Your task to perform on an android device: open app "NewsBreak: Local News & Alerts" (install if not already installed) and enter user name: "switch@outlook.com" and password: "fabrics" Image 0: 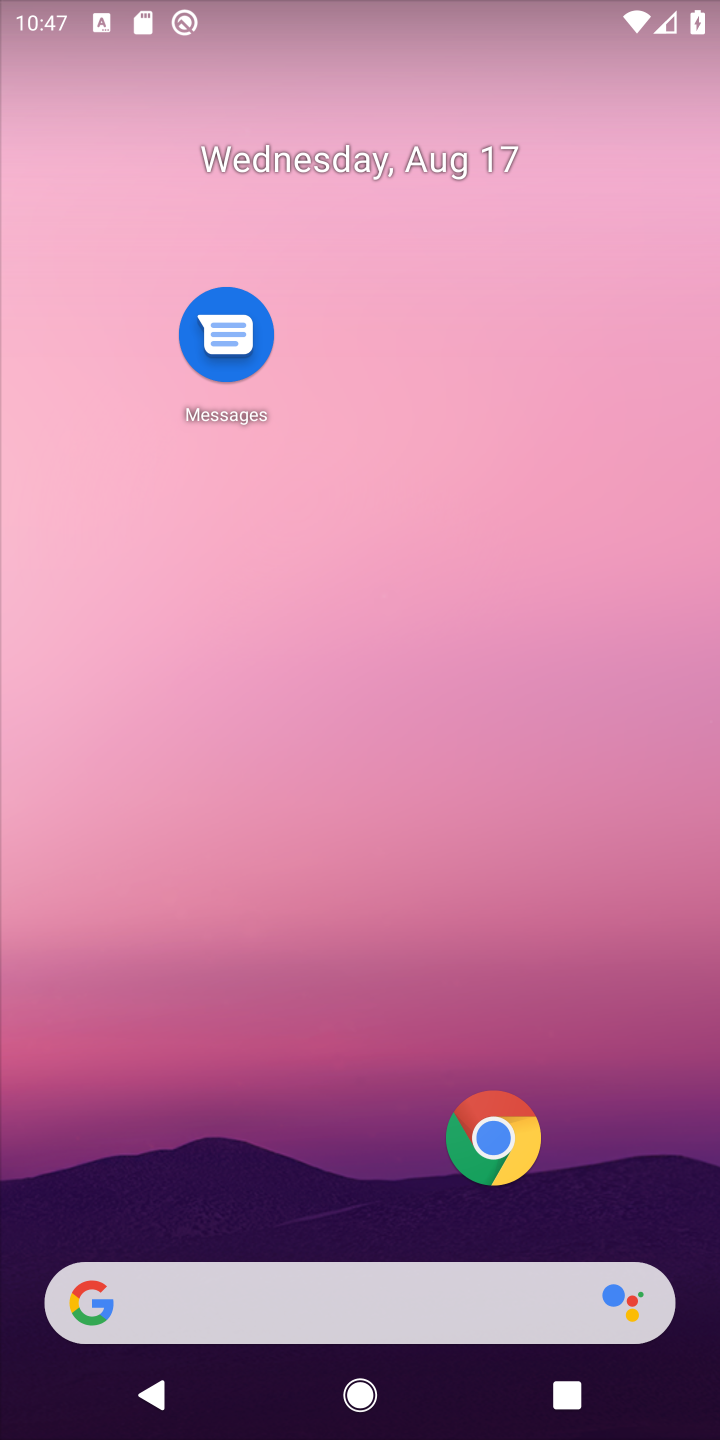
Step 0: drag from (246, 1180) to (253, 52)
Your task to perform on an android device: open app "NewsBreak: Local News & Alerts" (install if not already installed) and enter user name: "switch@outlook.com" and password: "fabrics" Image 1: 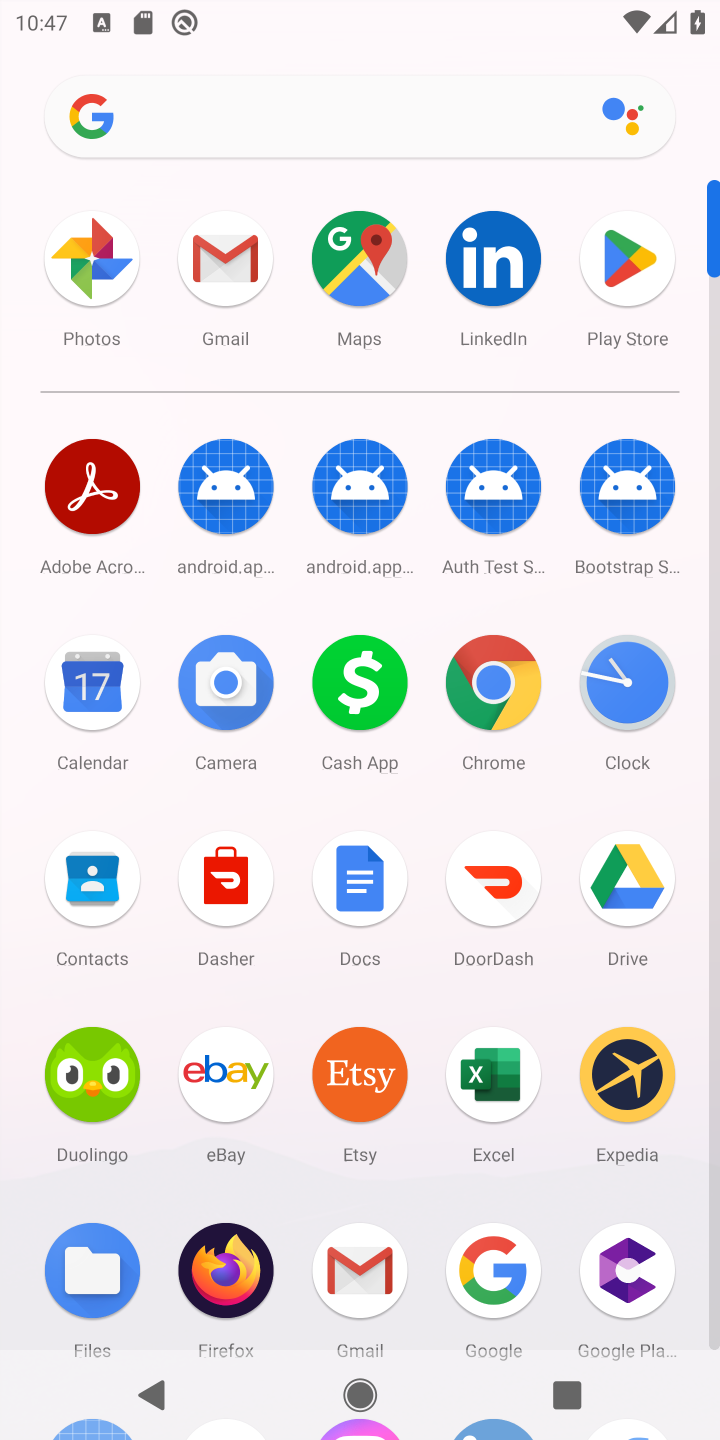
Step 1: click (599, 246)
Your task to perform on an android device: open app "NewsBreak: Local News & Alerts" (install if not already installed) and enter user name: "switch@outlook.com" and password: "fabrics" Image 2: 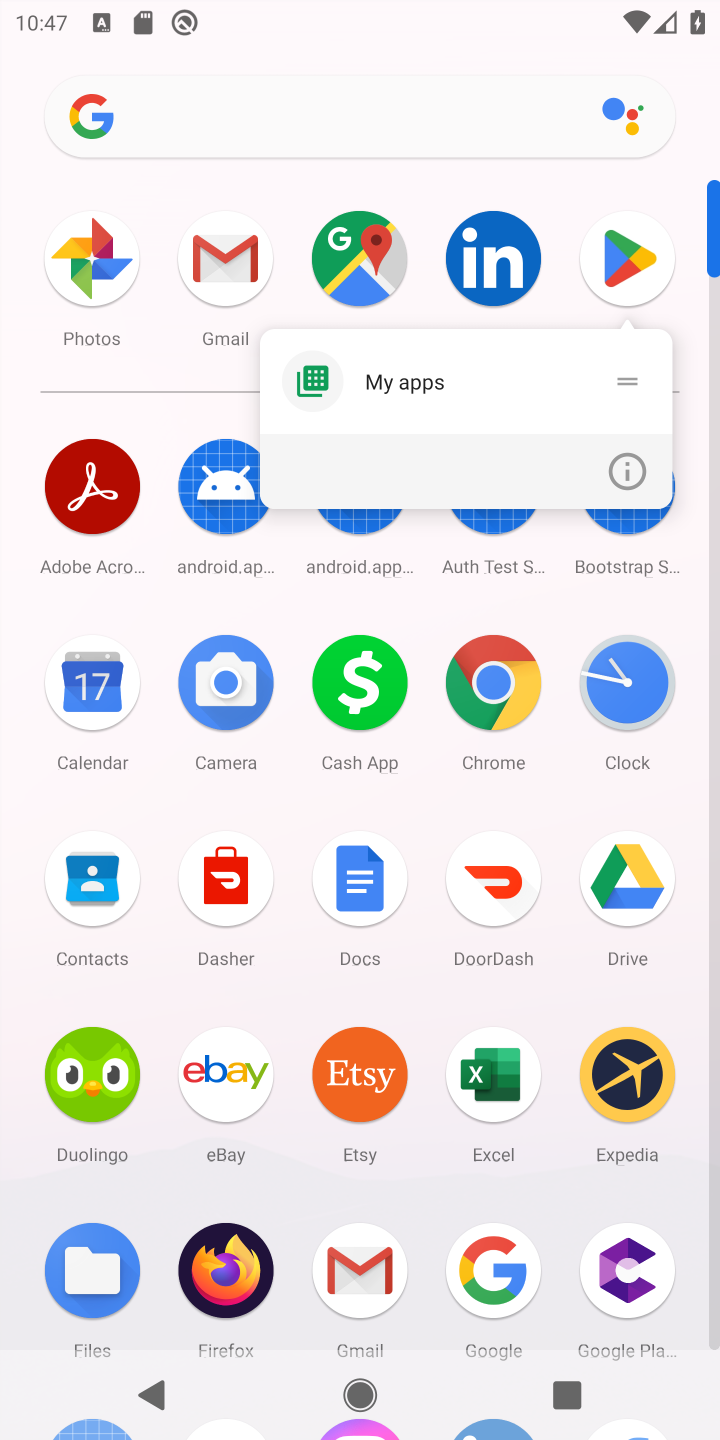
Step 2: click (631, 286)
Your task to perform on an android device: open app "NewsBreak: Local News & Alerts" (install if not already installed) and enter user name: "switch@outlook.com" and password: "fabrics" Image 3: 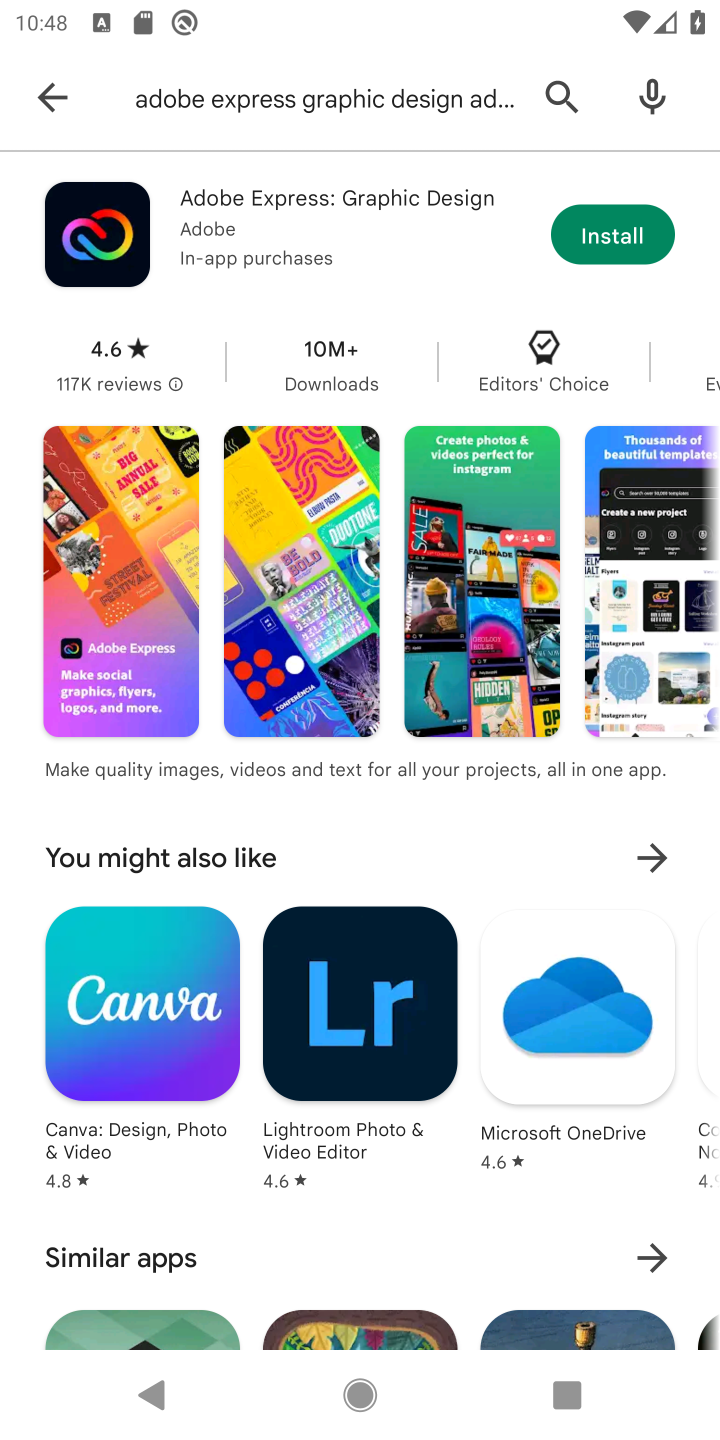
Step 3: click (49, 76)
Your task to perform on an android device: open app "NewsBreak: Local News & Alerts" (install if not already installed) and enter user name: "switch@outlook.com" and password: "fabrics" Image 4: 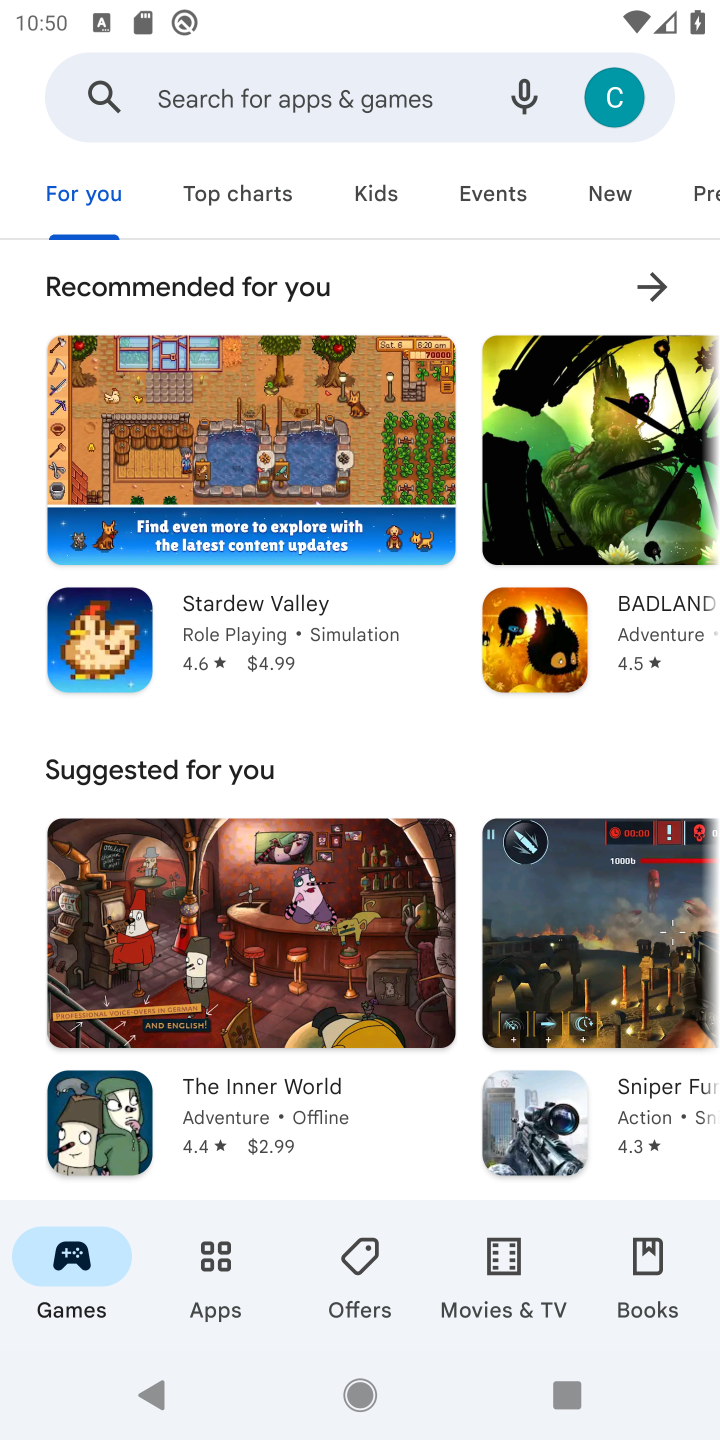
Step 4: click (305, 76)
Your task to perform on an android device: open app "NewsBreak: Local News & Alerts" (install if not already installed) and enter user name: "switch@outlook.com" and password: "fabrics" Image 5: 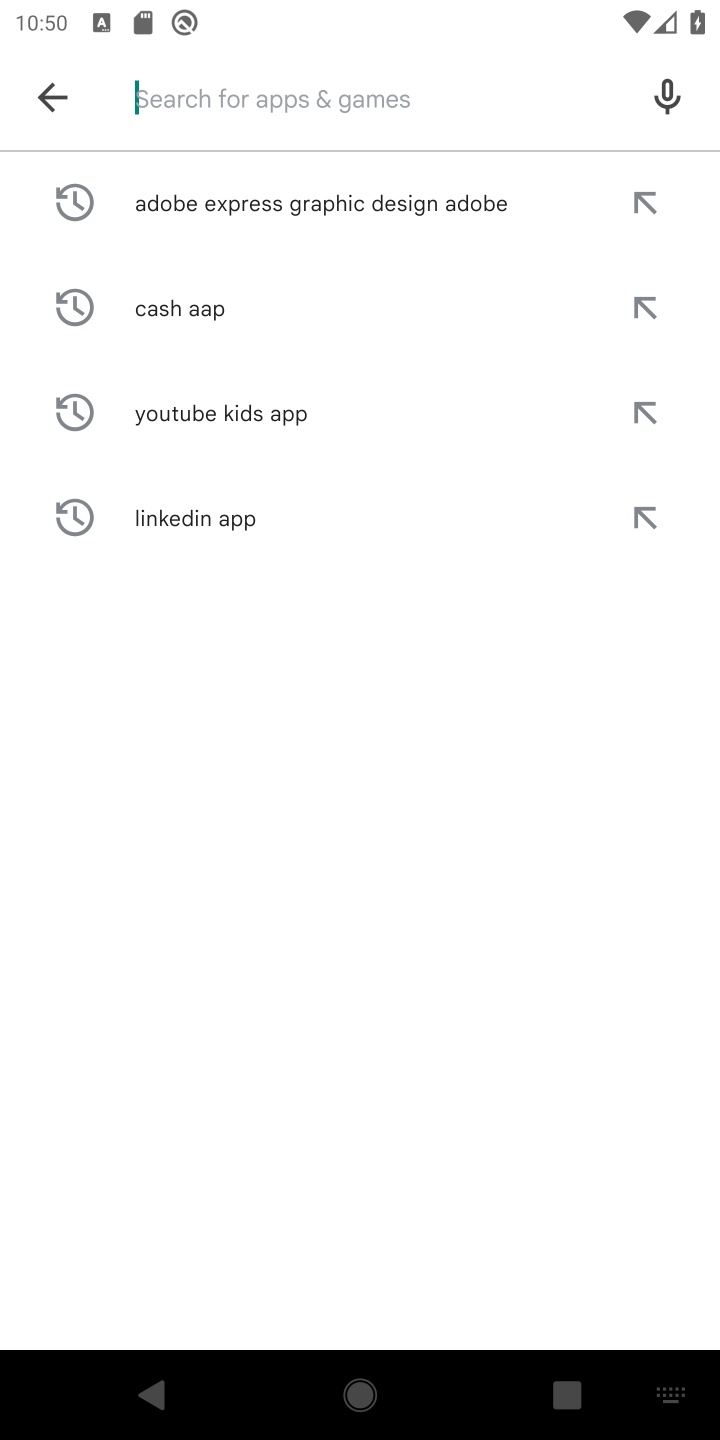
Step 5: type "NewsBreak: Local News & Alerts "
Your task to perform on an android device: open app "NewsBreak: Local News & Alerts" (install if not already installed) and enter user name: "switch@outlook.com" and password: "fabrics" Image 6: 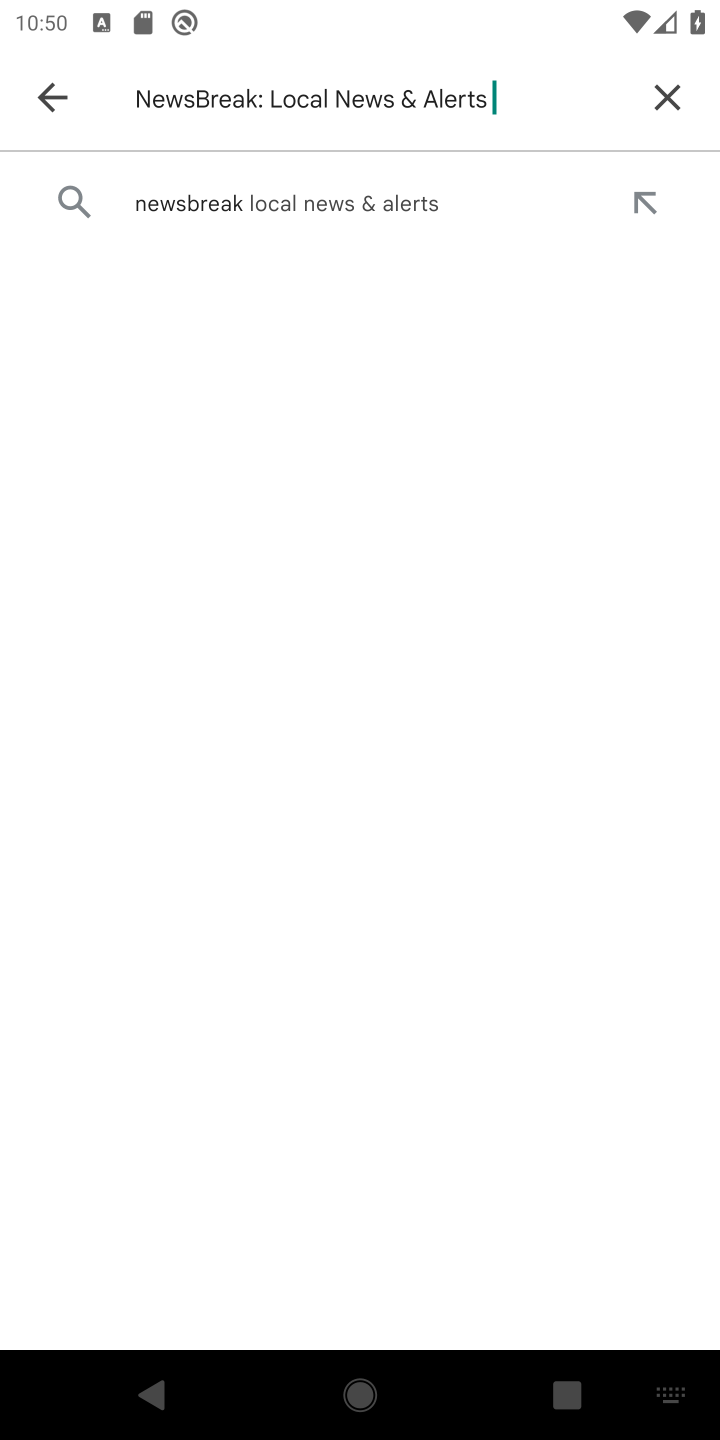
Step 6: click (417, 206)
Your task to perform on an android device: open app "NewsBreak: Local News & Alerts" (install if not already installed) and enter user name: "switch@outlook.com" and password: "fabrics" Image 7: 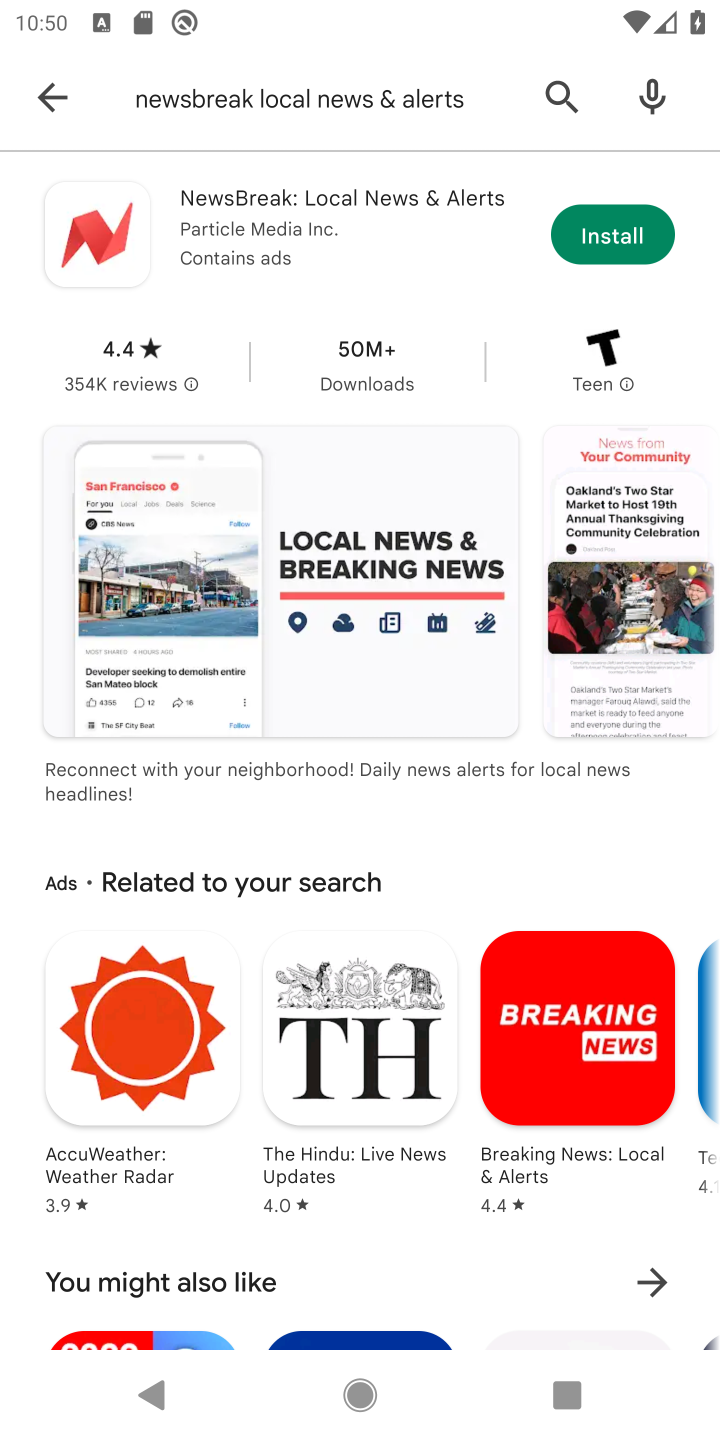
Step 7: click (645, 225)
Your task to perform on an android device: open app "NewsBreak: Local News & Alerts" (install if not already installed) and enter user name: "switch@outlook.com" and password: "fabrics" Image 8: 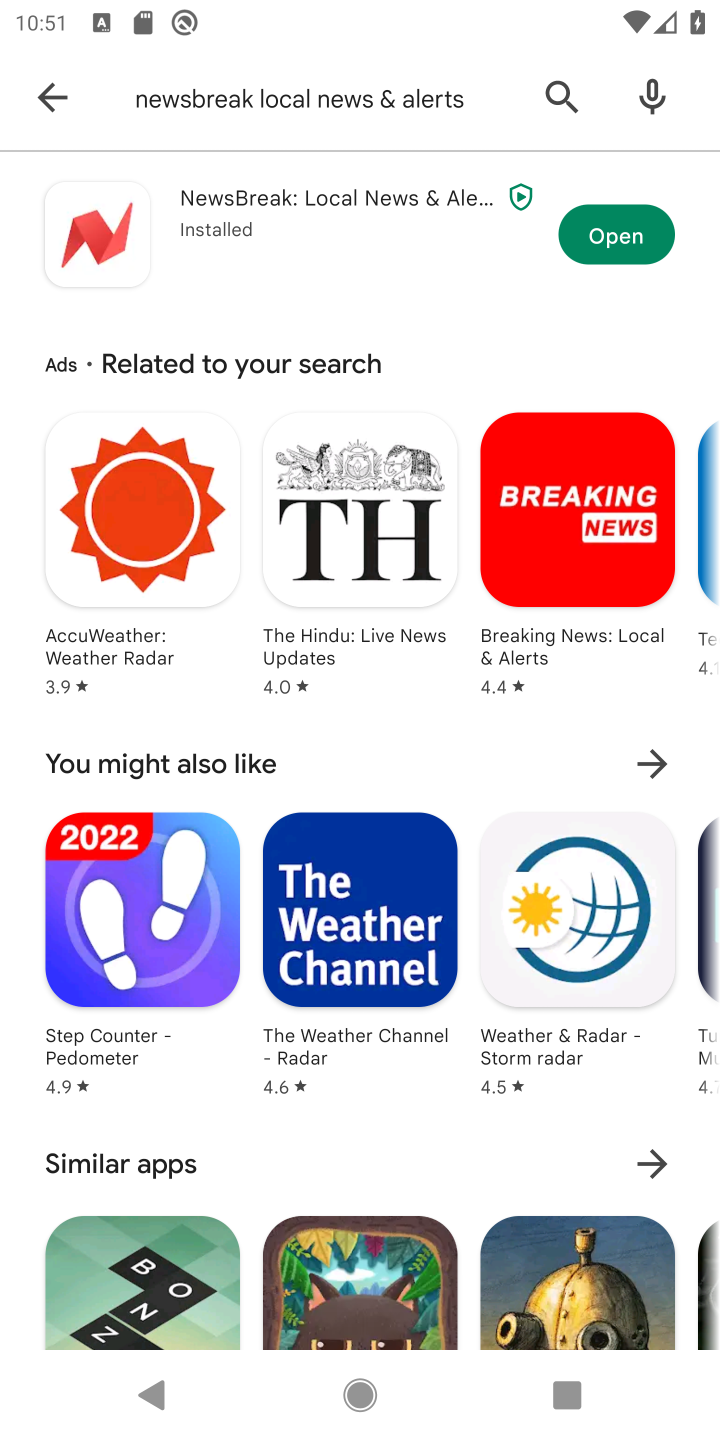
Step 8: click (585, 228)
Your task to perform on an android device: open app "NewsBreak: Local News & Alerts" (install if not already installed) and enter user name: "switch@outlook.com" and password: "fabrics" Image 9: 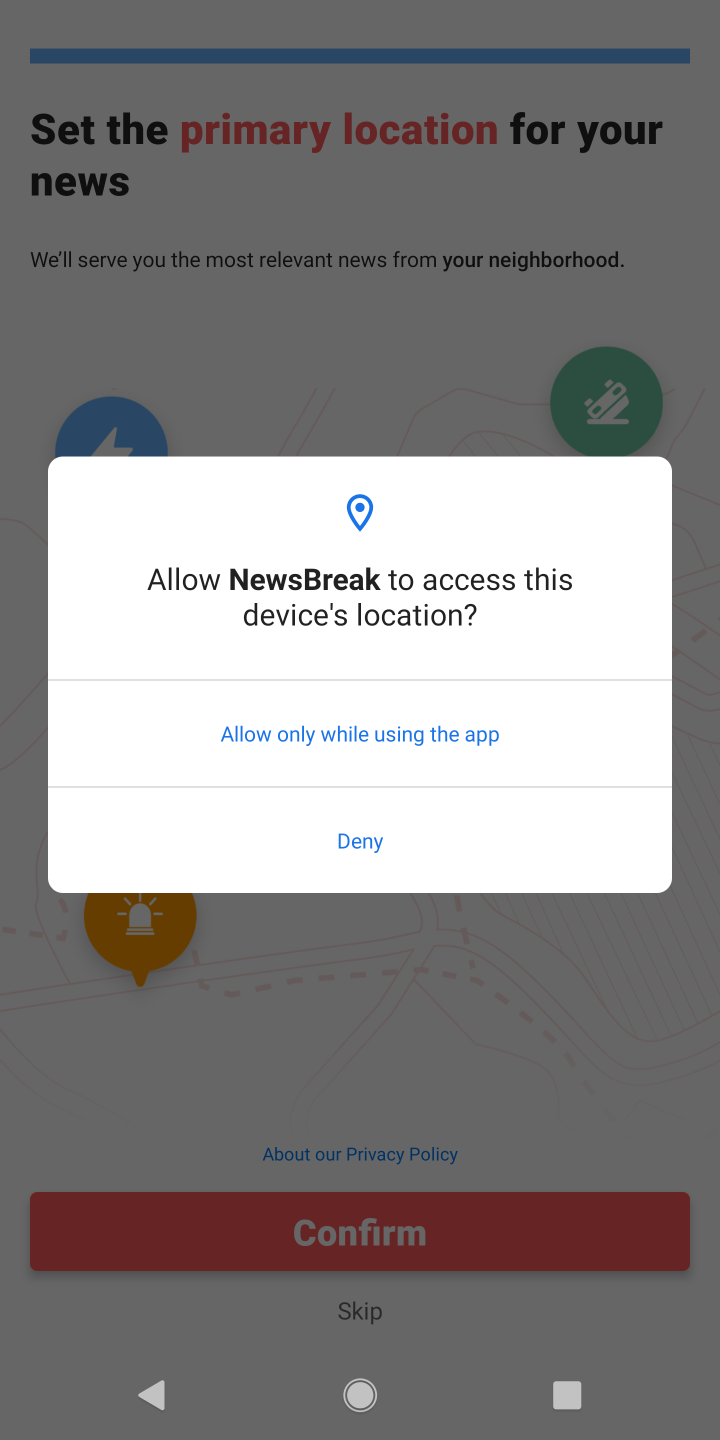
Step 9: click (373, 741)
Your task to perform on an android device: open app "NewsBreak: Local News & Alerts" (install if not already installed) and enter user name: "switch@outlook.com" and password: "fabrics" Image 10: 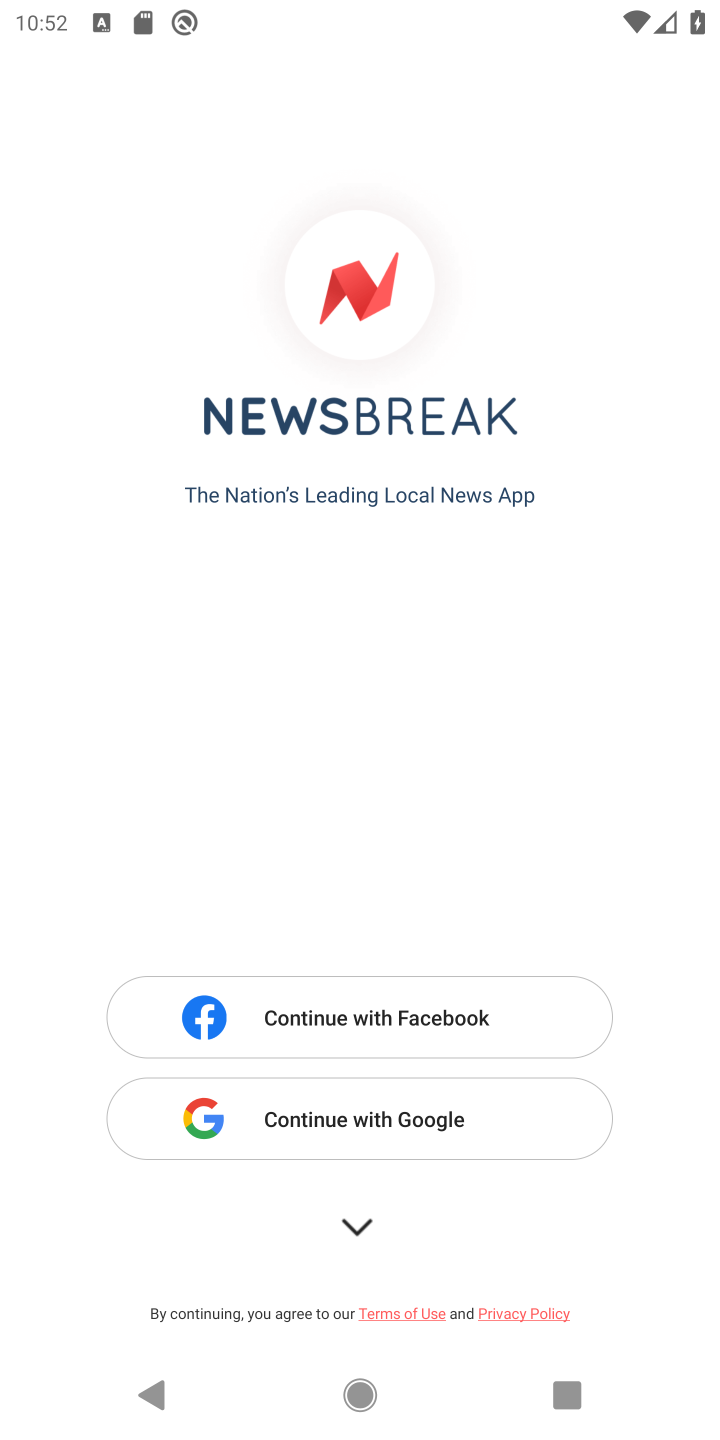
Step 10: click (410, 1120)
Your task to perform on an android device: open app "NewsBreak: Local News & Alerts" (install if not already installed) and enter user name: "switch@outlook.com" and password: "fabrics" Image 11: 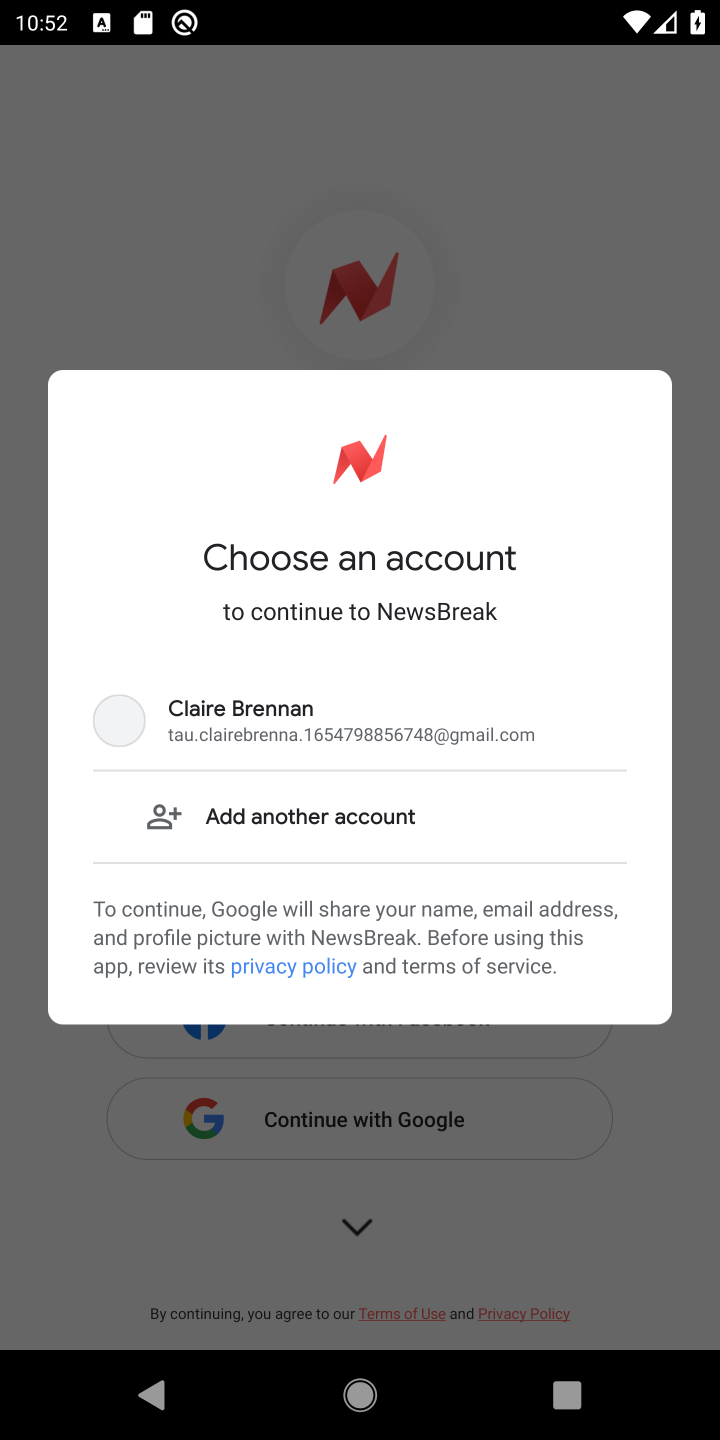
Step 11: click (375, 805)
Your task to perform on an android device: open app "NewsBreak: Local News & Alerts" (install if not already installed) and enter user name: "switch@outlook.com" and password: "fabrics" Image 12: 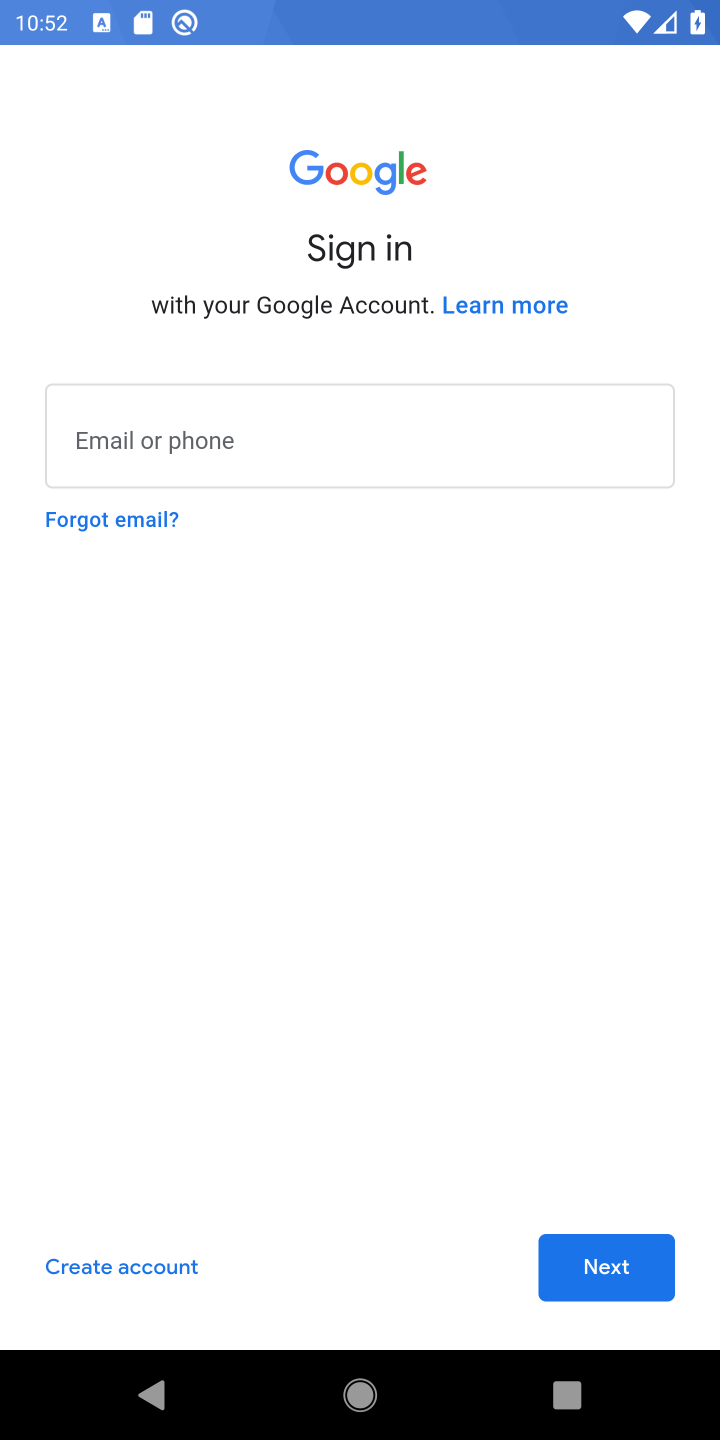
Step 12: click (400, 434)
Your task to perform on an android device: open app "NewsBreak: Local News & Alerts" (install if not already installed) and enter user name: "switch@outlook.com" and password: "fabrics" Image 13: 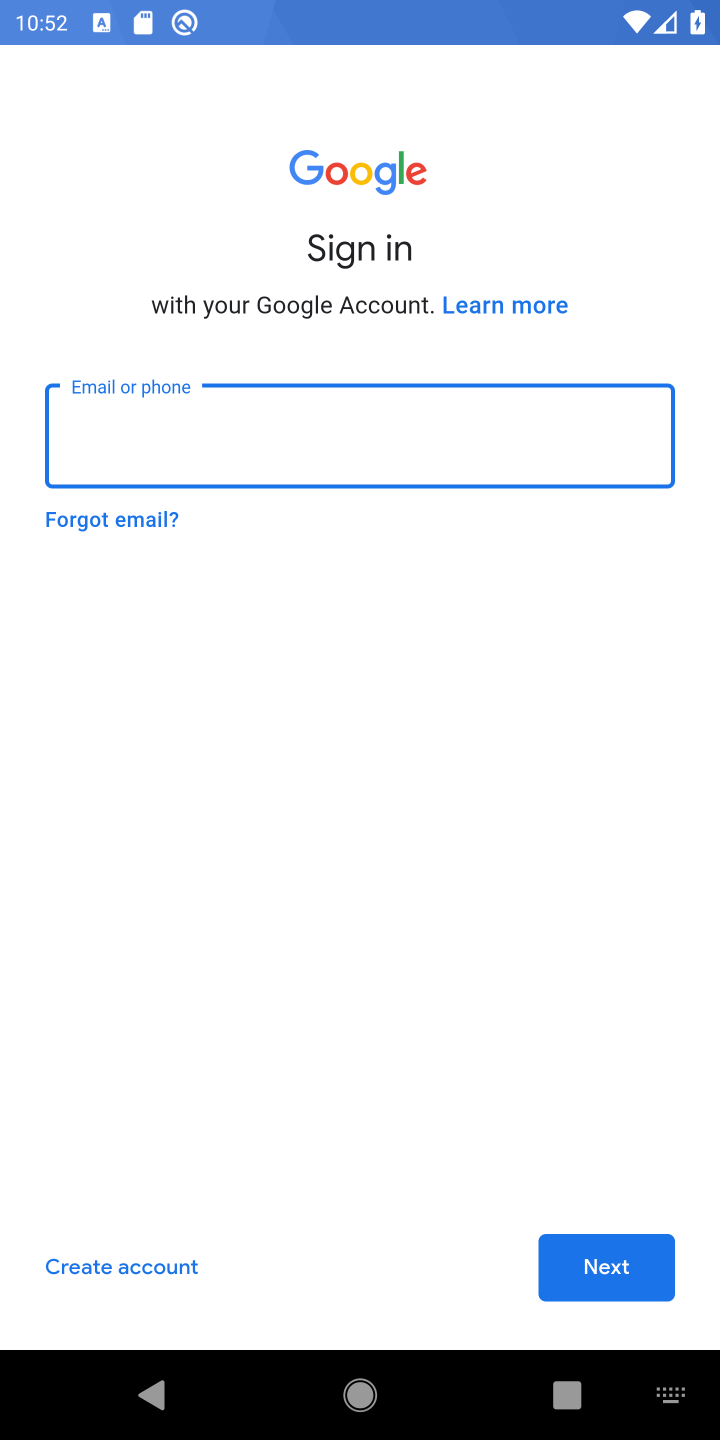
Step 13: type "switch@outlook.com "
Your task to perform on an android device: open app "NewsBreak: Local News & Alerts" (install if not already installed) and enter user name: "switch@outlook.com" and password: "fabrics" Image 14: 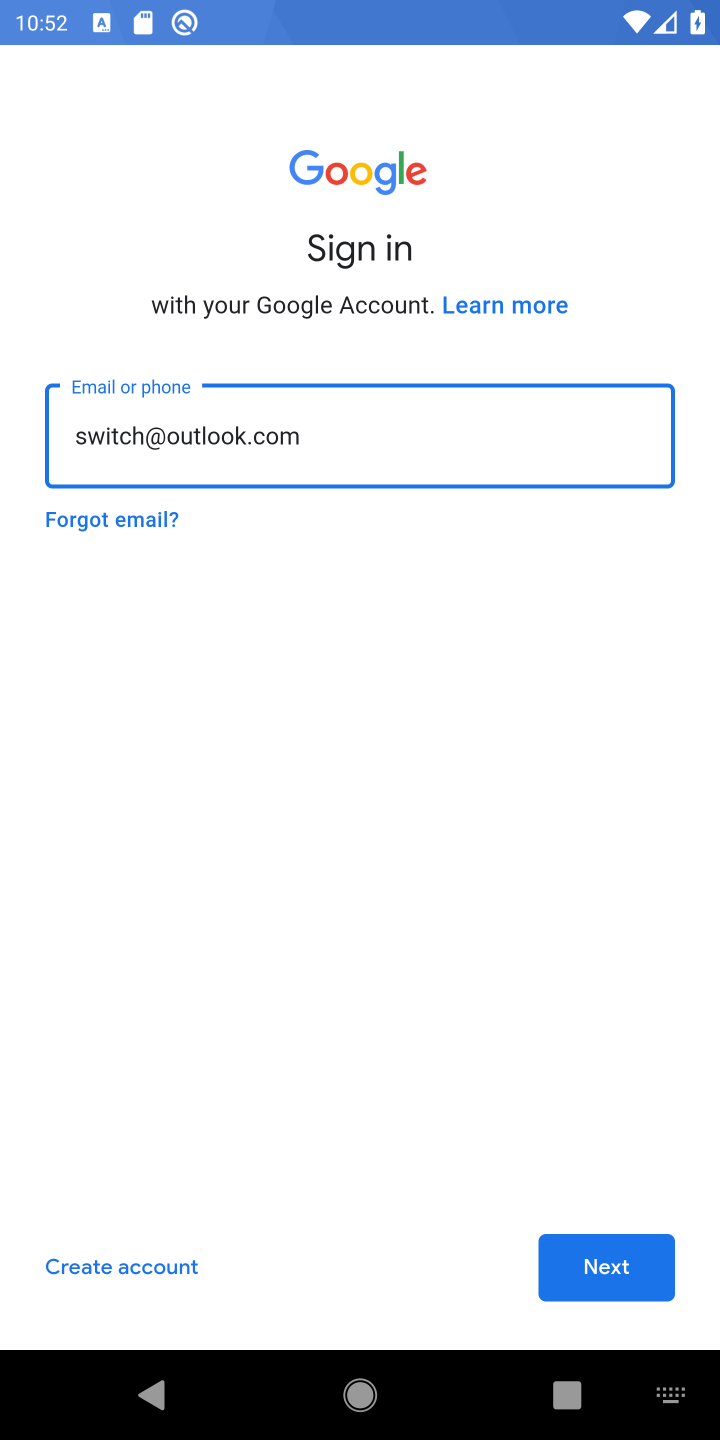
Step 14: click (624, 1267)
Your task to perform on an android device: open app "NewsBreak: Local News & Alerts" (install if not already installed) and enter user name: "switch@outlook.com" and password: "fabrics" Image 15: 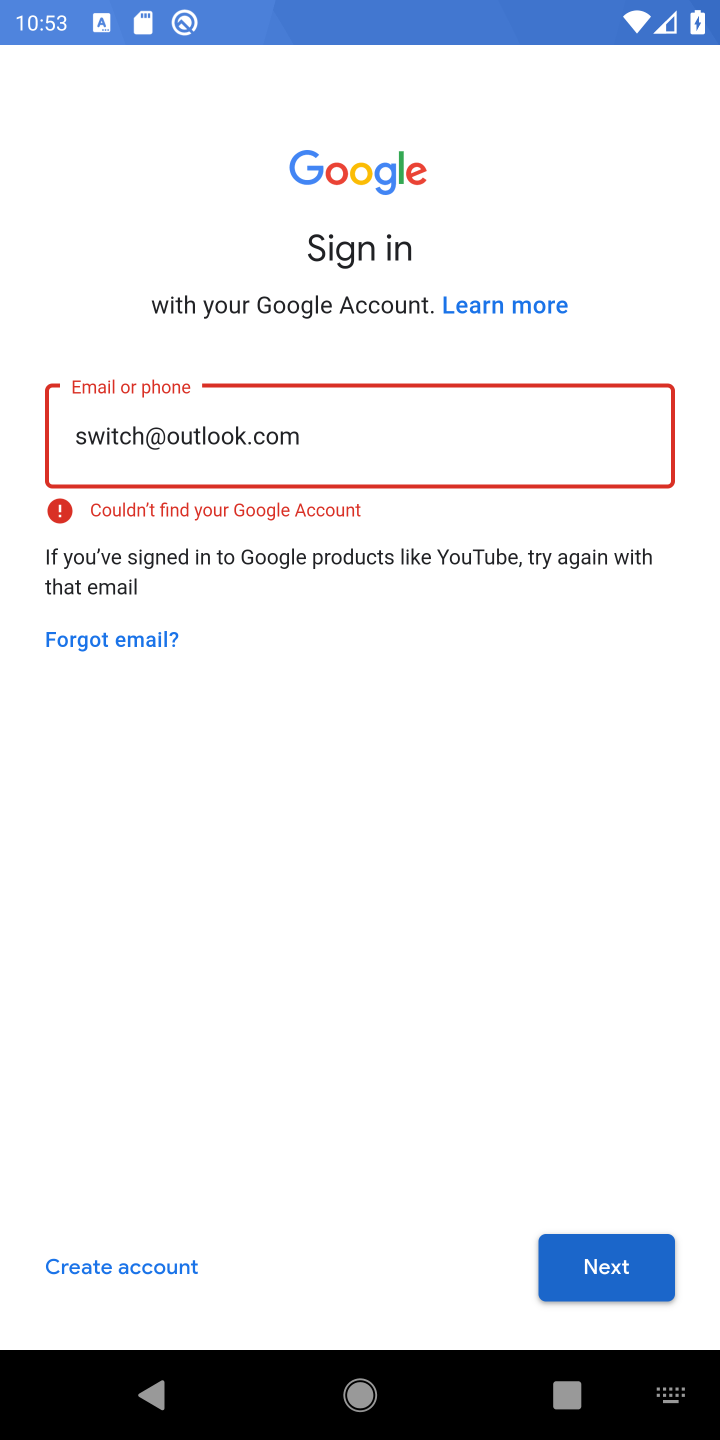
Step 15: click (608, 1258)
Your task to perform on an android device: open app "NewsBreak: Local News & Alerts" (install if not already installed) and enter user name: "switch@outlook.com" and password: "fabrics" Image 16: 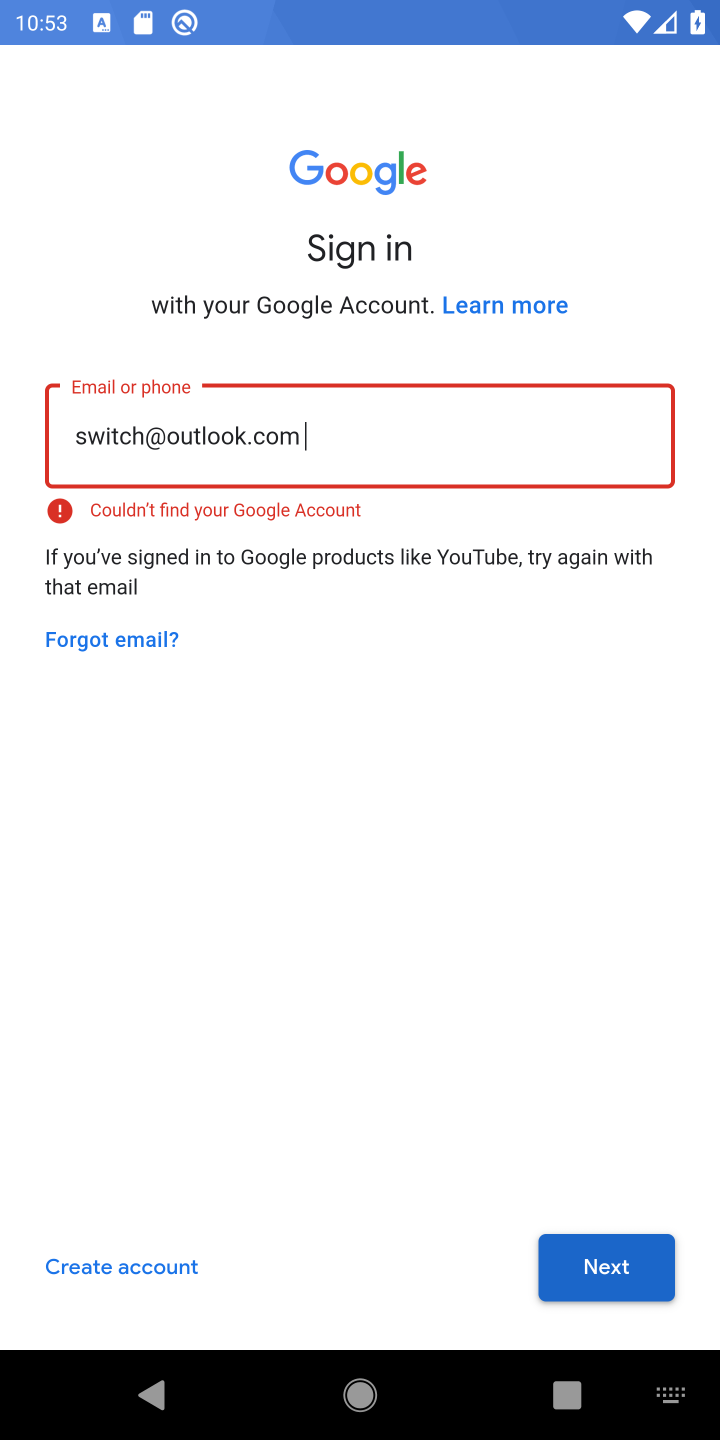
Step 16: task complete